Your task to perform on an android device: Show me popular videos on Youtube Image 0: 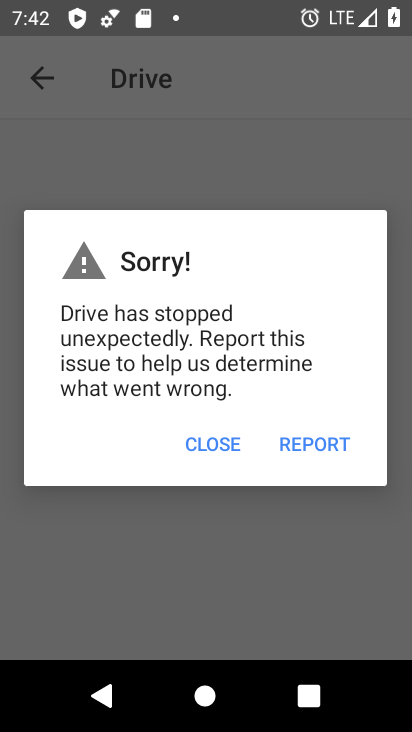
Step 0: drag from (356, 515) to (352, 294)
Your task to perform on an android device: Show me popular videos on Youtube Image 1: 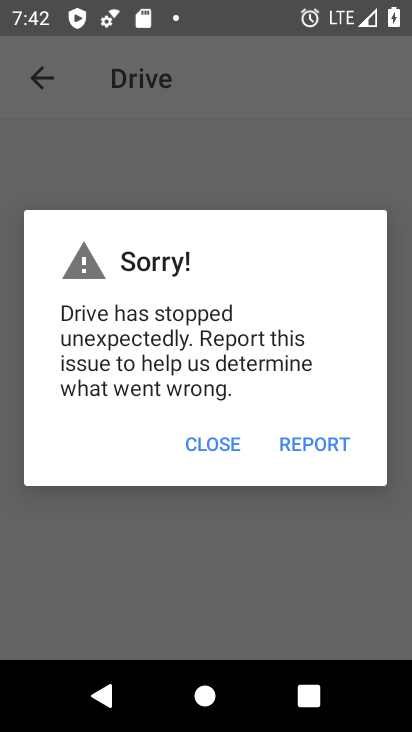
Step 1: click (217, 434)
Your task to perform on an android device: Show me popular videos on Youtube Image 2: 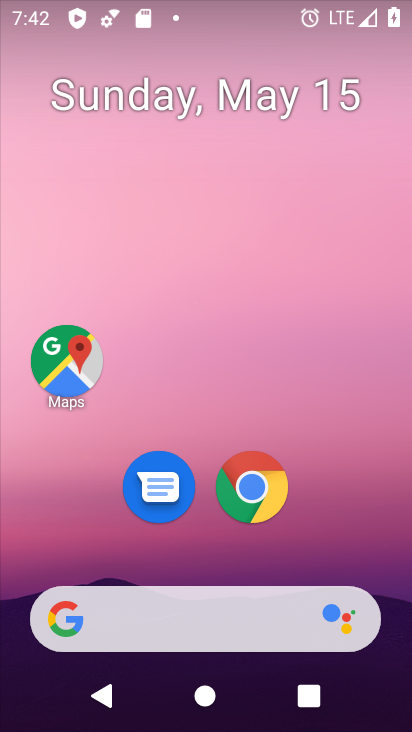
Step 2: drag from (354, 538) to (272, 104)
Your task to perform on an android device: Show me popular videos on Youtube Image 3: 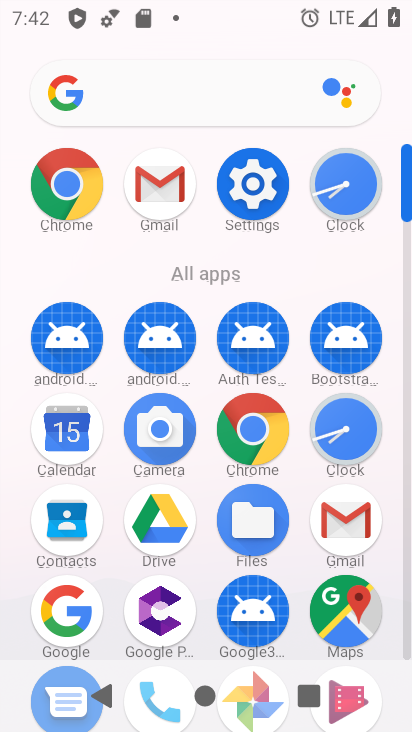
Step 3: drag from (295, 557) to (296, 229)
Your task to perform on an android device: Show me popular videos on Youtube Image 4: 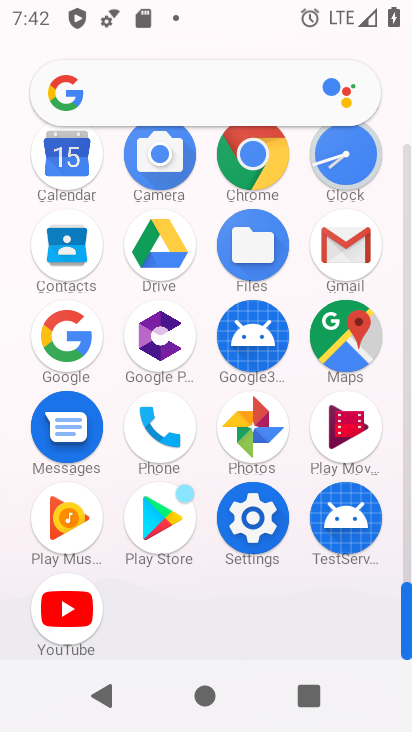
Step 4: click (51, 628)
Your task to perform on an android device: Show me popular videos on Youtube Image 5: 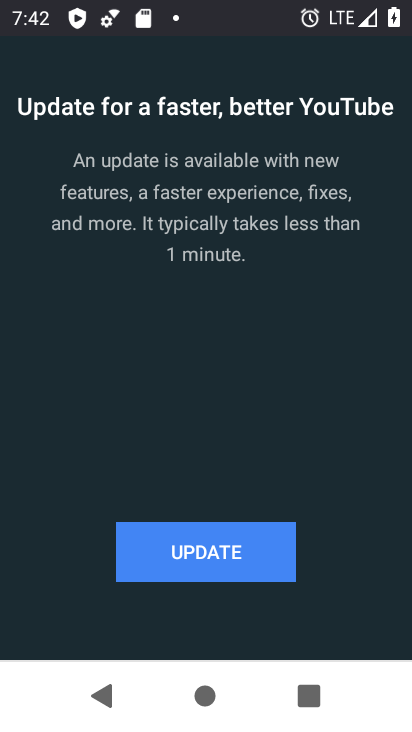
Step 5: click (187, 563)
Your task to perform on an android device: Show me popular videos on Youtube Image 6: 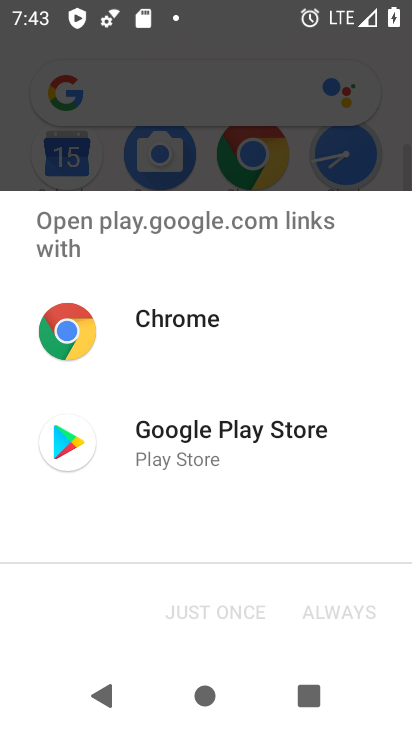
Step 6: click (130, 449)
Your task to perform on an android device: Show me popular videos on Youtube Image 7: 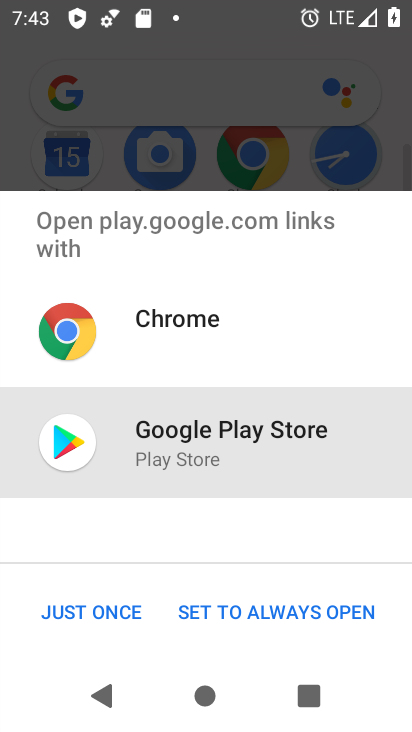
Step 7: click (130, 604)
Your task to perform on an android device: Show me popular videos on Youtube Image 8: 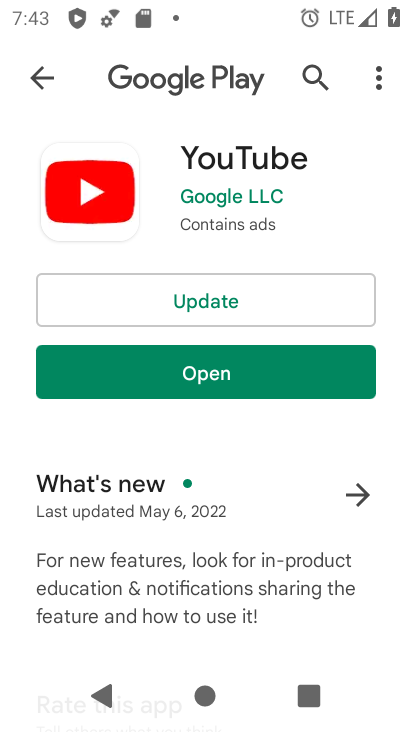
Step 8: click (202, 284)
Your task to perform on an android device: Show me popular videos on Youtube Image 9: 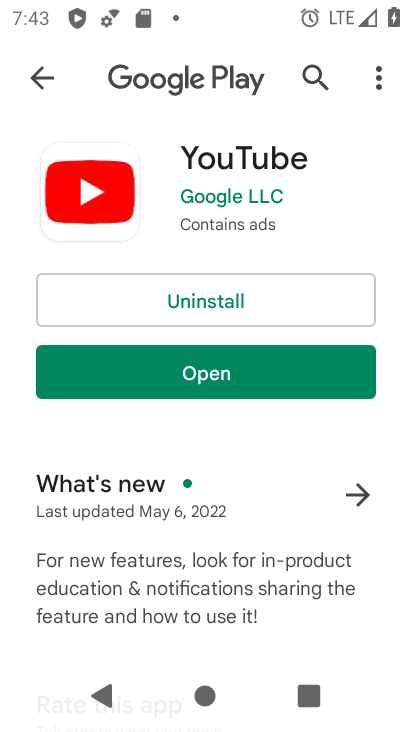
Step 9: click (240, 358)
Your task to perform on an android device: Show me popular videos on Youtube Image 10: 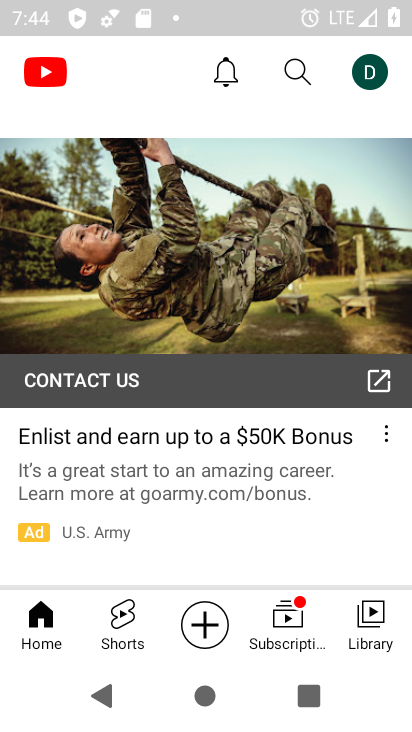
Step 10: task complete